Your task to perform on an android device: turn off location history Image 0: 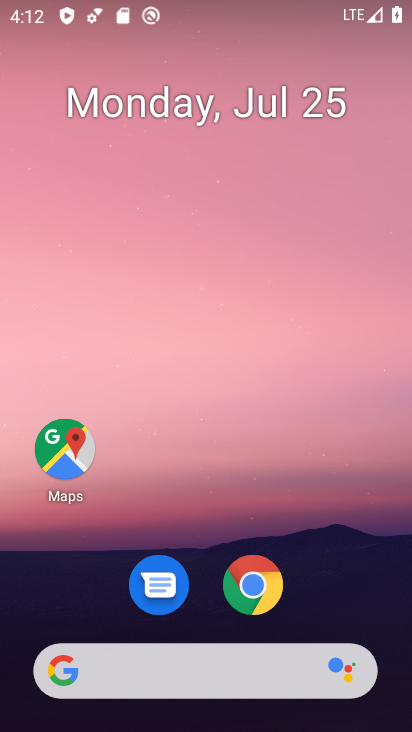
Step 0: drag from (331, 557) to (352, 25)
Your task to perform on an android device: turn off location history Image 1: 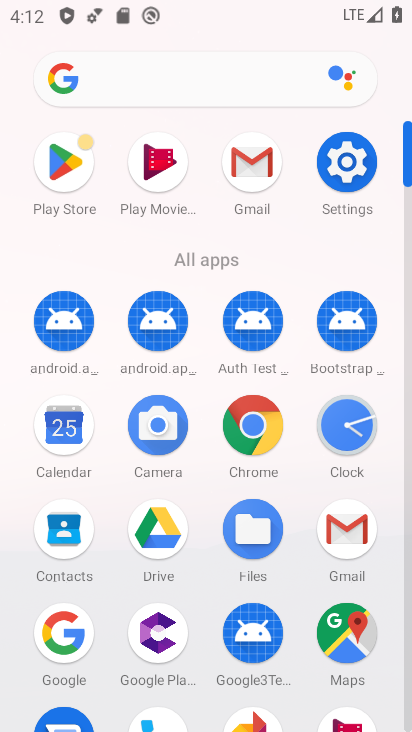
Step 1: click (339, 162)
Your task to perform on an android device: turn off location history Image 2: 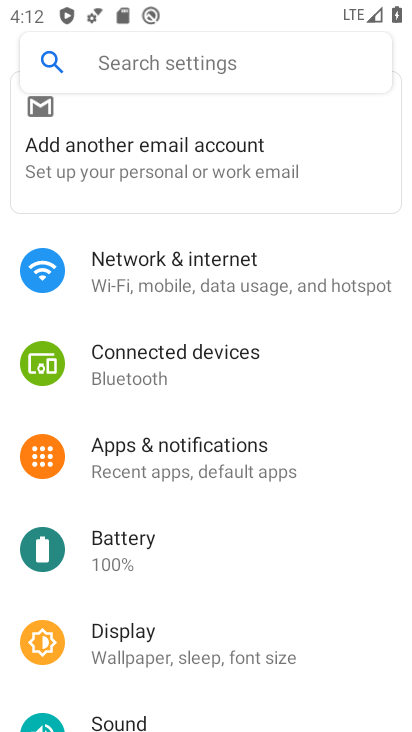
Step 2: drag from (206, 693) to (288, 5)
Your task to perform on an android device: turn off location history Image 3: 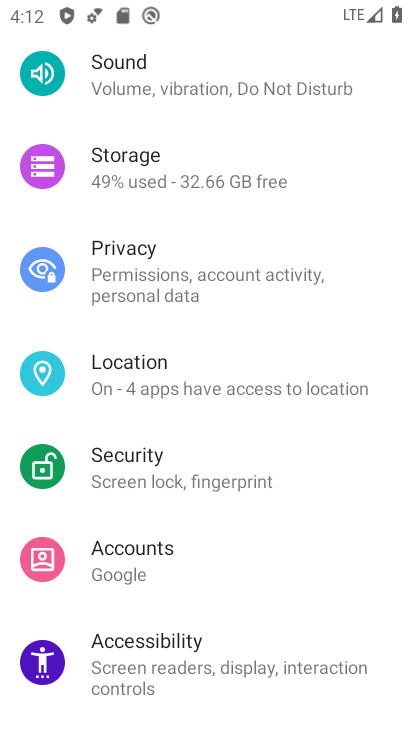
Step 3: click (228, 391)
Your task to perform on an android device: turn off location history Image 4: 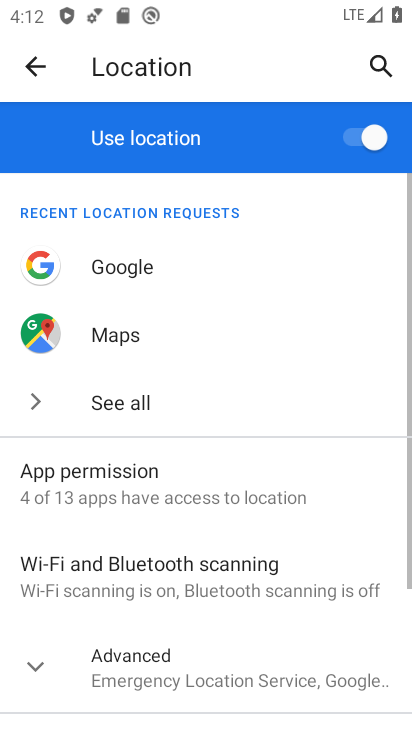
Step 4: click (38, 662)
Your task to perform on an android device: turn off location history Image 5: 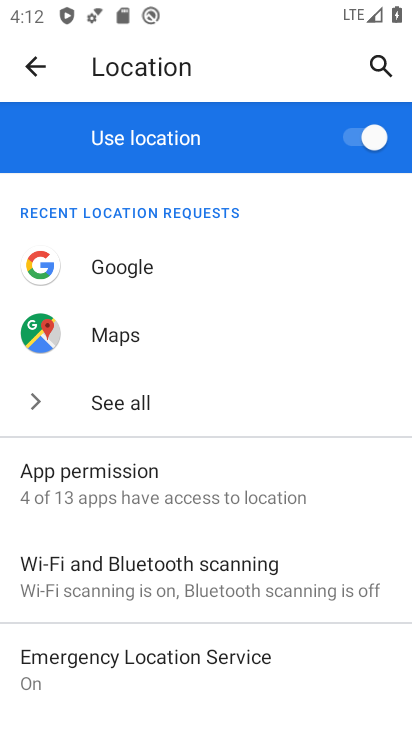
Step 5: drag from (231, 615) to (297, 167)
Your task to perform on an android device: turn off location history Image 6: 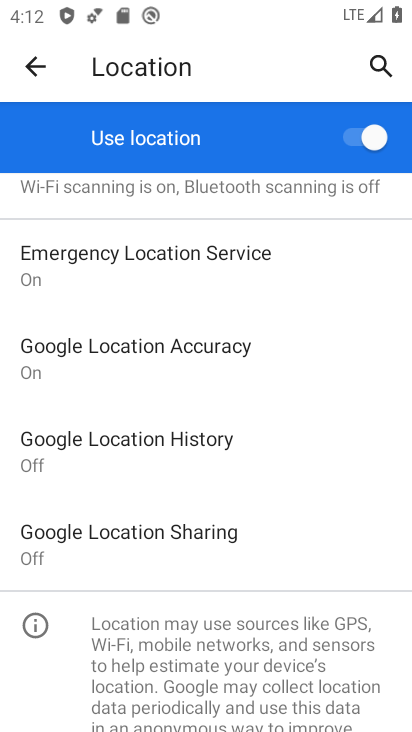
Step 6: click (175, 438)
Your task to perform on an android device: turn off location history Image 7: 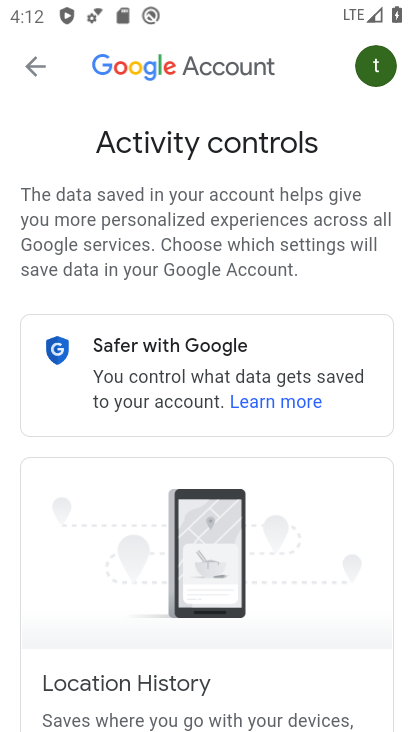
Step 7: task complete